Your task to perform on an android device: turn off translation in the chrome app Image 0: 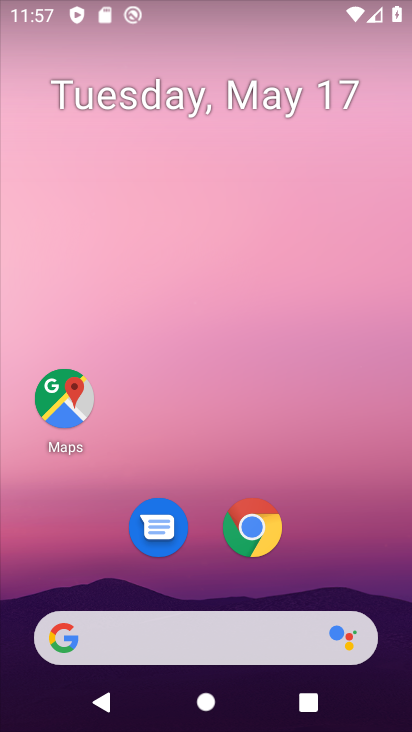
Step 0: click (261, 524)
Your task to perform on an android device: turn off translation in the chrome app Image 1: 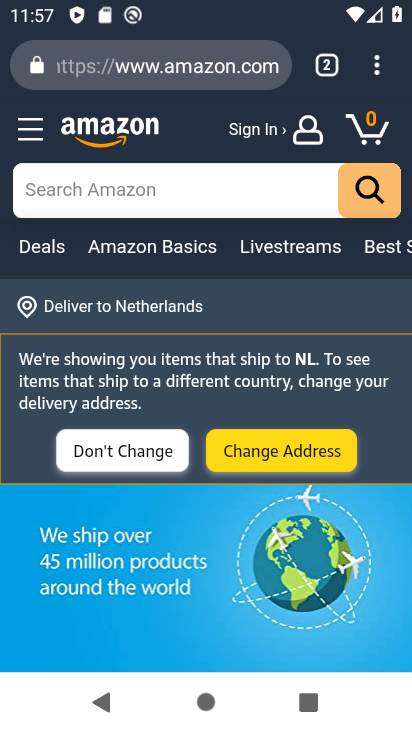
Step 1: click (379, 73)
Your task to perform on an android device: turn off translation in the chrome app Image 2: 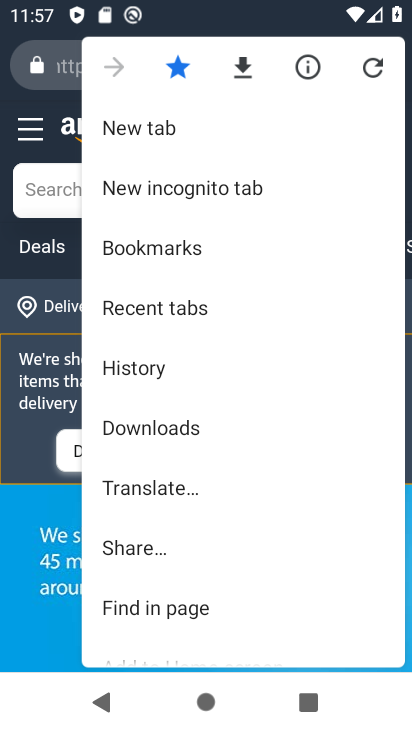
Step 2: drag from (252, 569) to (218, 122)
Your task to perform on an android device: turn off translation in the chrome app Image 3: 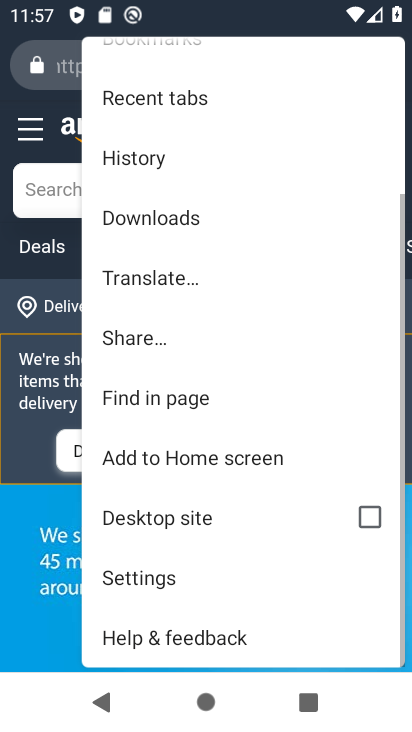
Step 3: click (193, 580)
Your task to perform on an android device: turn off translation in the chrome app Image 4: 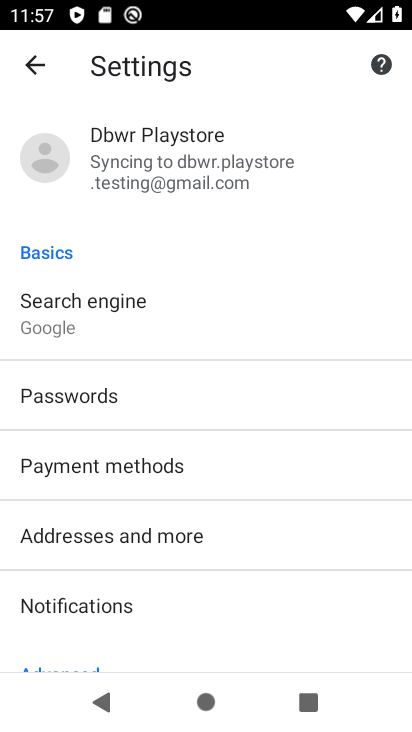
Step 4: drag from (262, 534) to (208, 126)
Your task to perform on an android device: turn off translation in the chrome app Image 5: 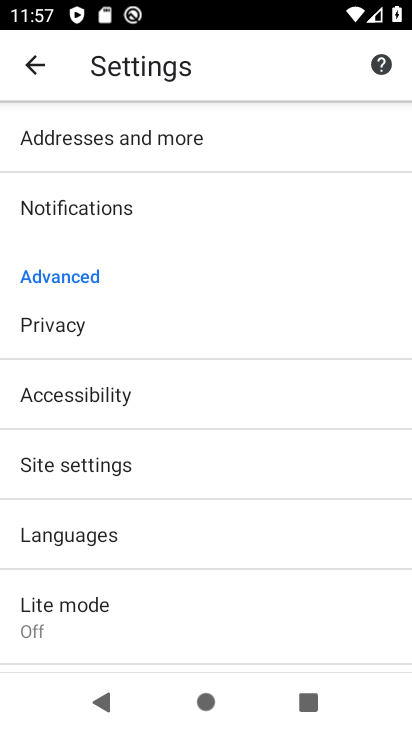
Step 5: click (162, 520)
Your task to perform on an android device: turn off translation in the chrome app Image 6: 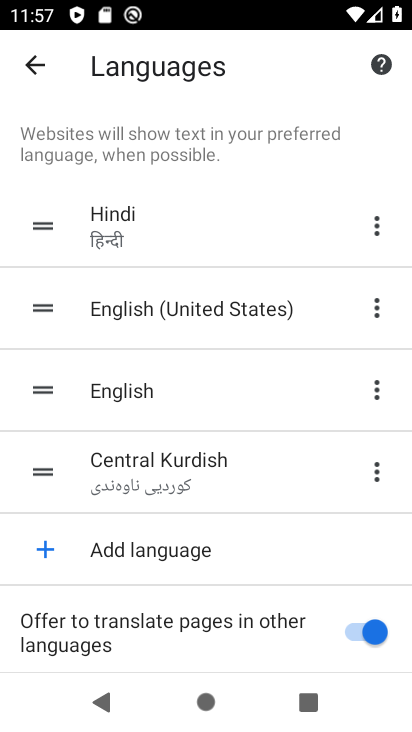
Step 6: click (367, 638)
Your task to perform on an android device: turn off translation in the chrome app Image 7: 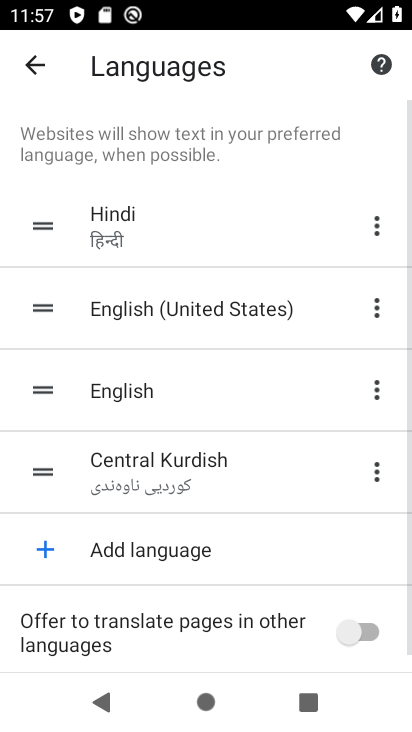
Step 7: task complete